Your task to perform on an android device: move an email to a new category in the gmail app Image 0: 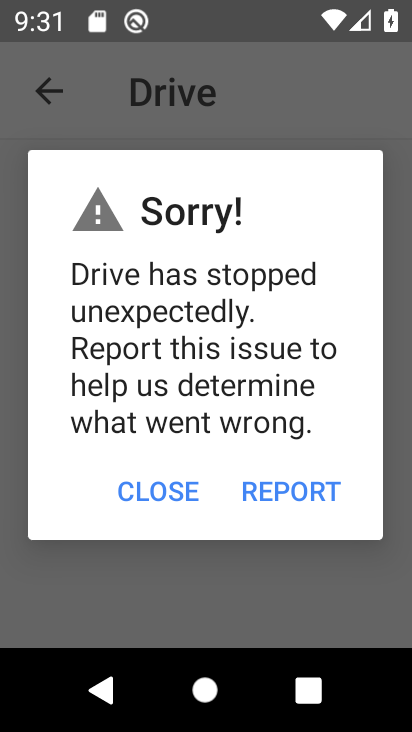
Step 0: press home button
Your task to perform on an android device: move an email to a new category in the gmail app Image 1: 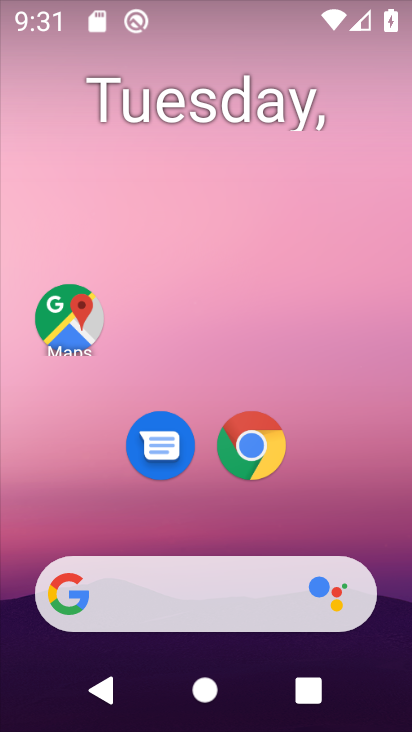
Step 1: drag from (209, 528) to (240, 59)
Your task to perform on an android device: move an email to a new category in the gmail app Image 2: 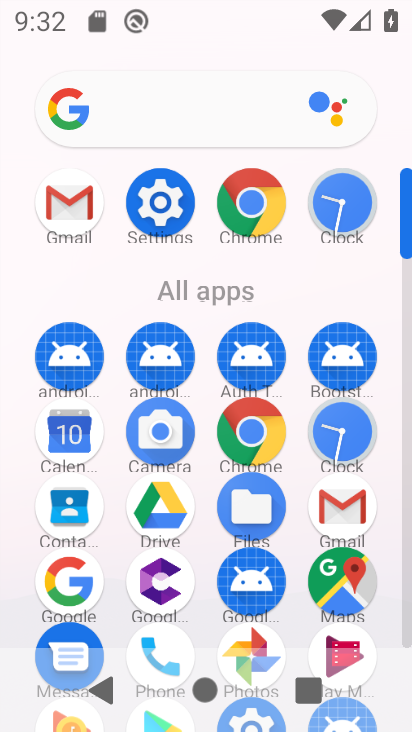
Step 2: click (78, 213)
Your task to perform on an android device: move an email to a new category in the gmail app Image 3: 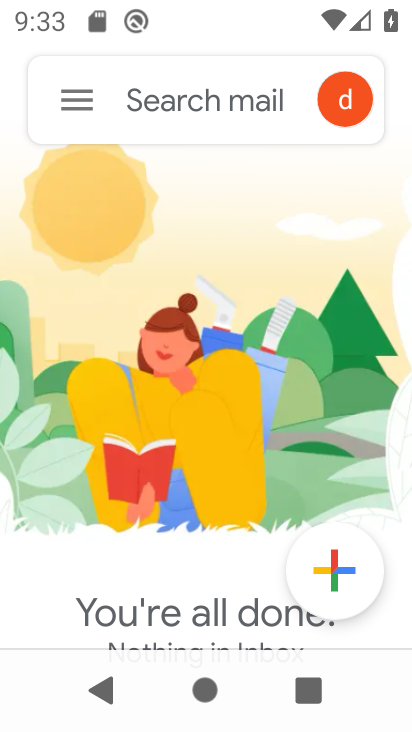
Step 3: task complete